Your task to perform on an android device: change notifications settings Image 0: 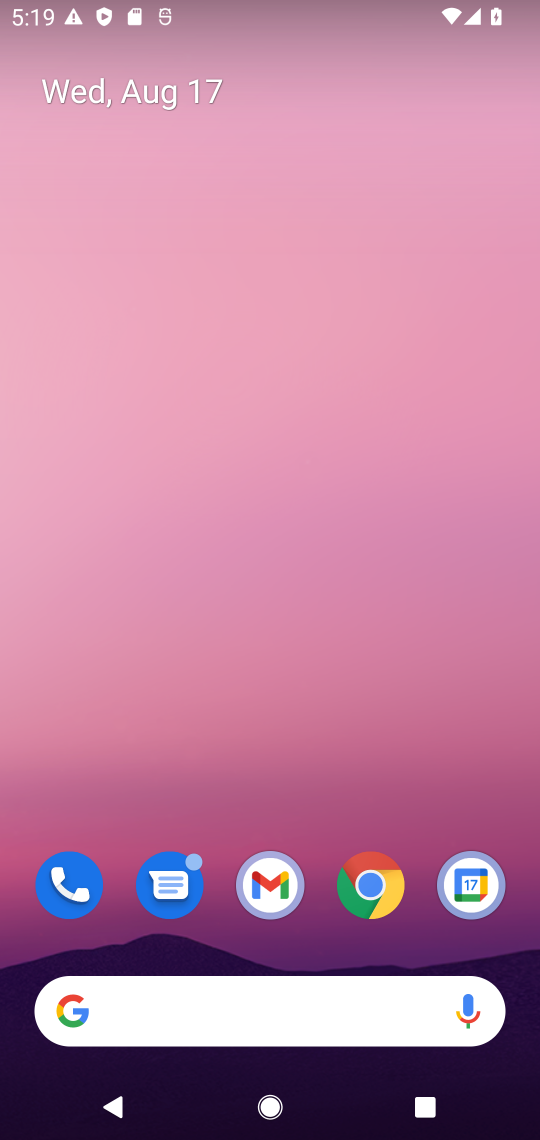
Step 0: drag from (333, 782) to (285, 50)
Your task to perform on an android device: change notifications settings Image 1: 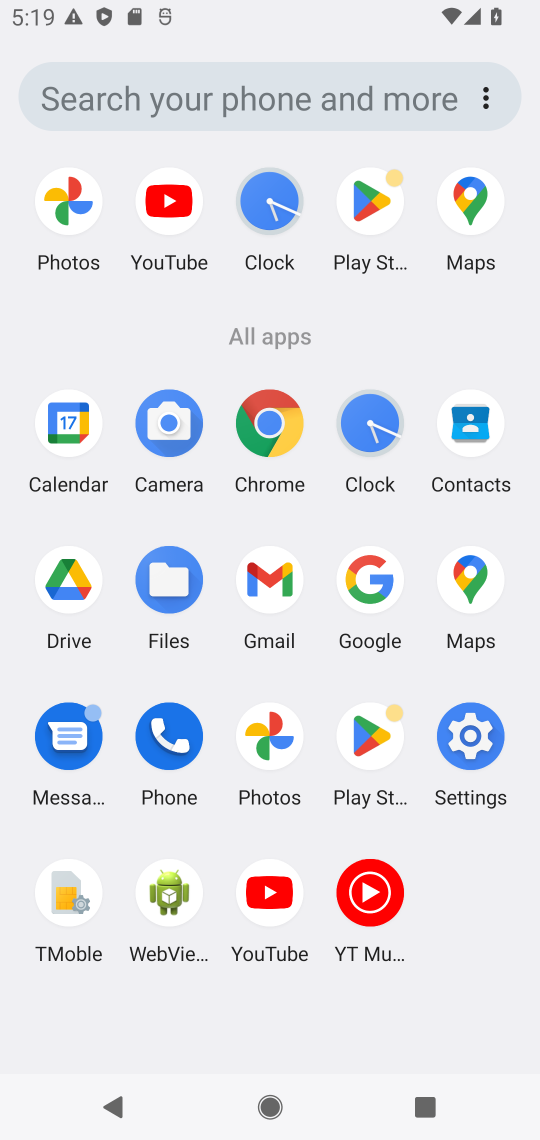
Step 1: click (455, 740)
Your task to perform on an android device: change notifications settings Image 2: 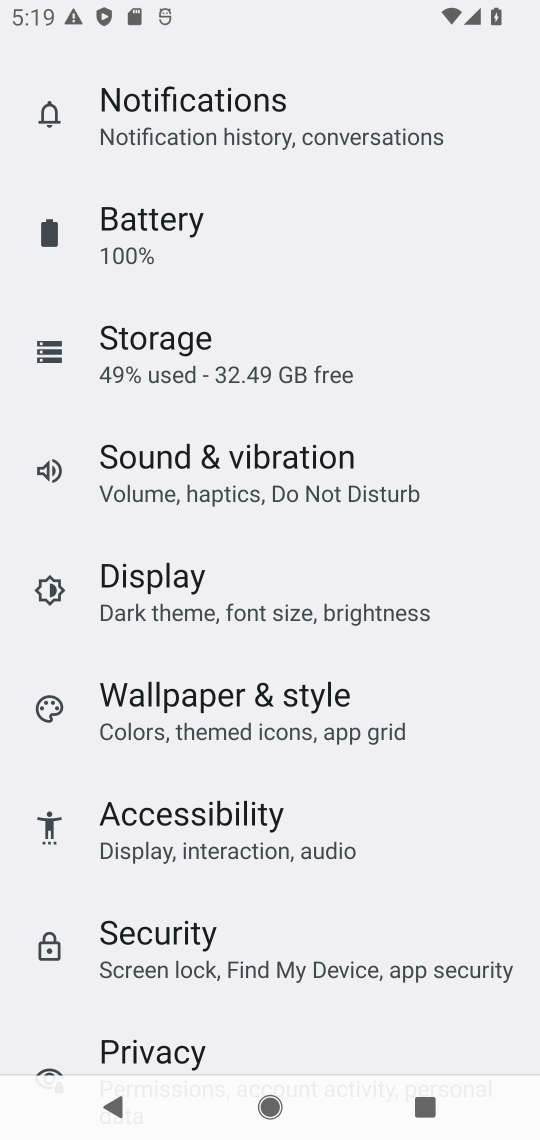
Step 2: click (246, 137)
Your task to perform on an android device: change notifications settings Image 3: 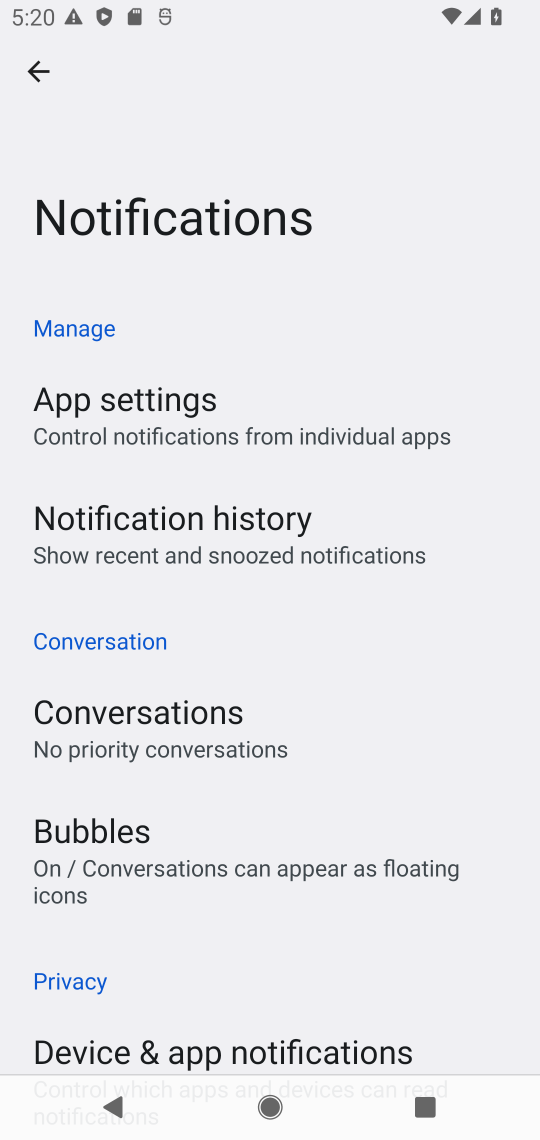
Step 3: task complete